Your task to perform on an android device: uninstall "Etsy: Buy & Sell Unique Items" Image 0: 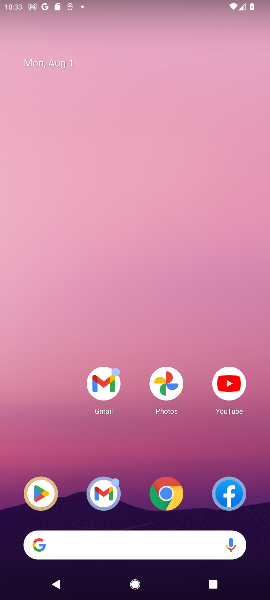
Step 0: drag from (75, 512) to (36, 2)
Your task to perform on an android device: uninstall "Etsy: Buy & Sell Unique Items" Image 1: 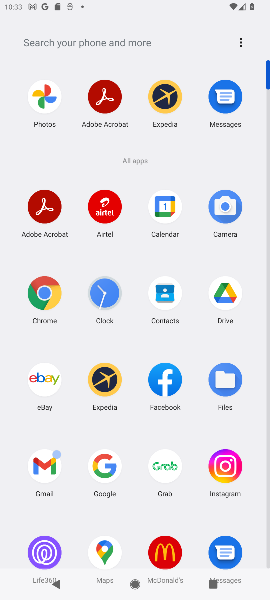
Step 1: task complete